Your task to perform on an android device: Go to eBay Image 0: 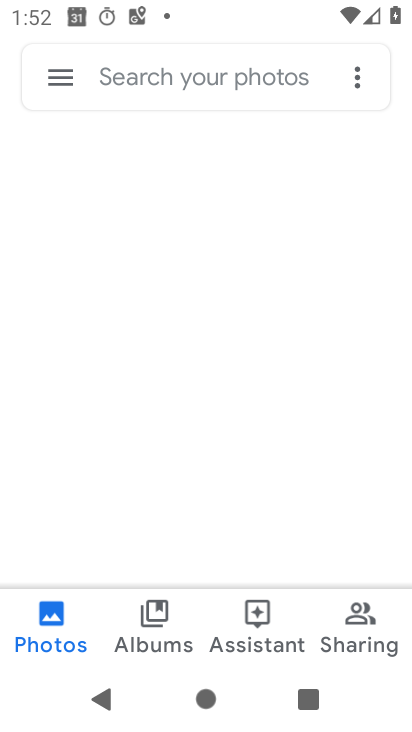
Step 0: press home button
Your task to perform on an android device: Go to eBay Image 1: 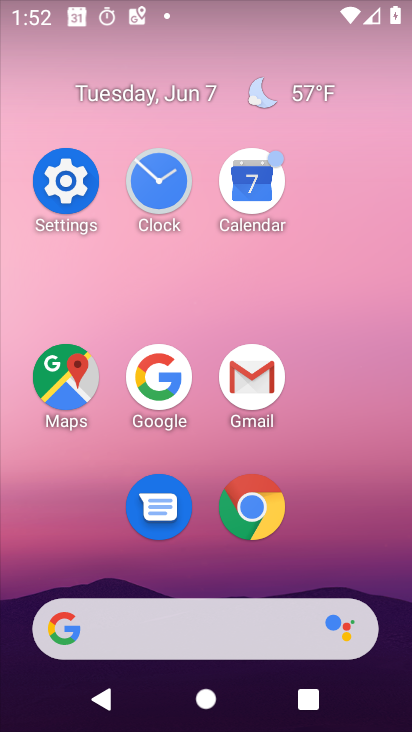
Step 1: click (180, 390)
Your task to perform on an android device: Go to eBay Image 2: 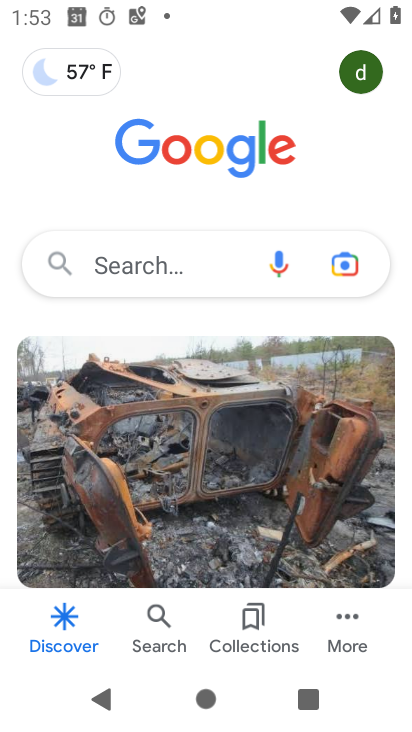
Step 2: click (181, 249)
Your task to perform on an android device: Go to eBay Image 3: 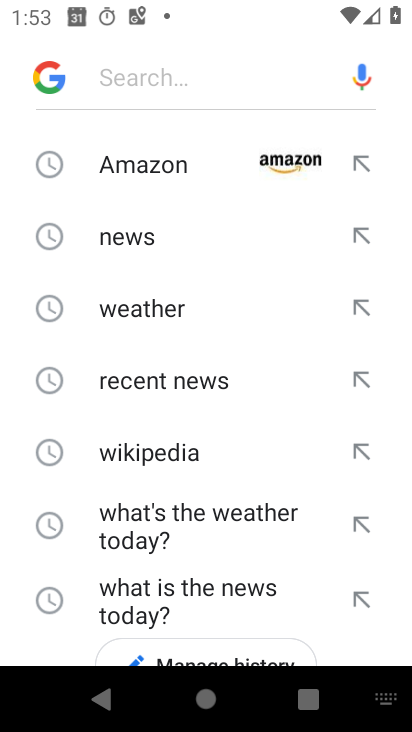
Step 3: drag from (233, 487) to (175, 158)
Your task to perform on an android device: Go to eBay Image 4: 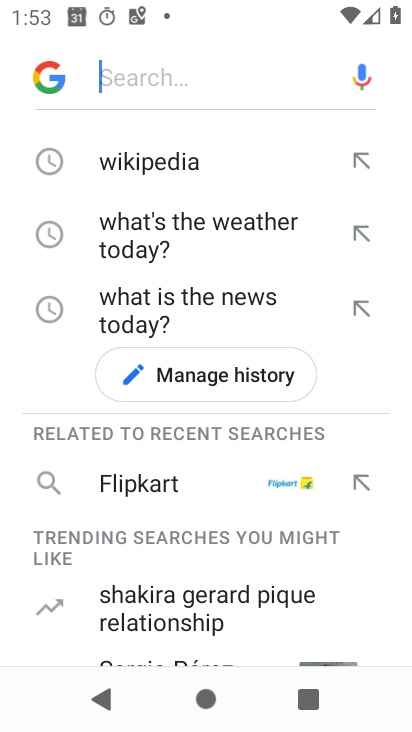
Step 4: drag from (195, 476) to (187, 156)
Your task to perform on an android device: Go to eBay Image 5: 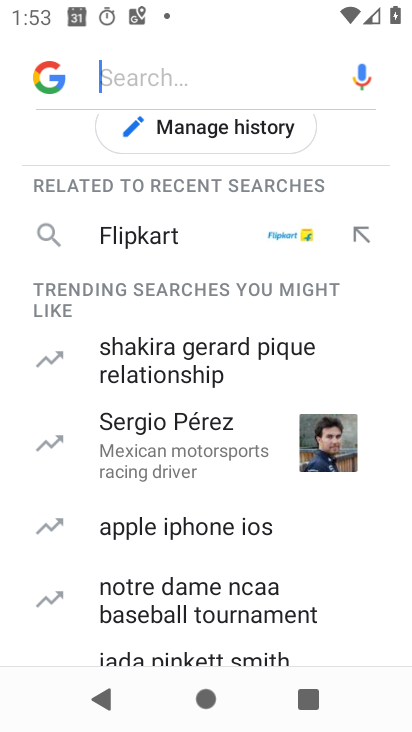
Step 5: drag from (235, 188) to (197, 577)
Your task to perform on an android device: Go to eBay Image 6: 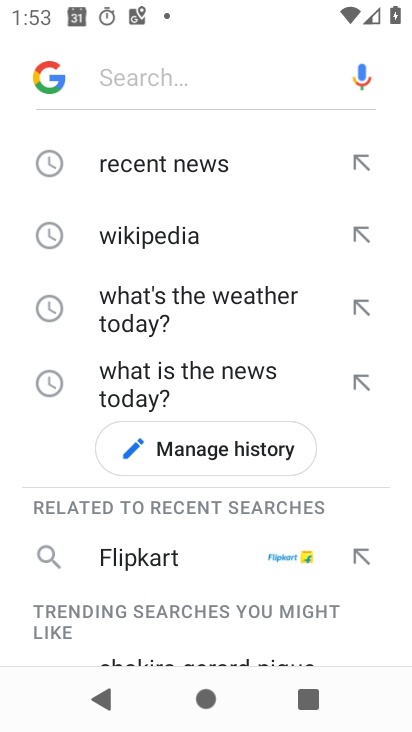
Step 6: drag from (221, 173) to (199, 500)
Your task to perform on an android device: Go to eBay Image 7: 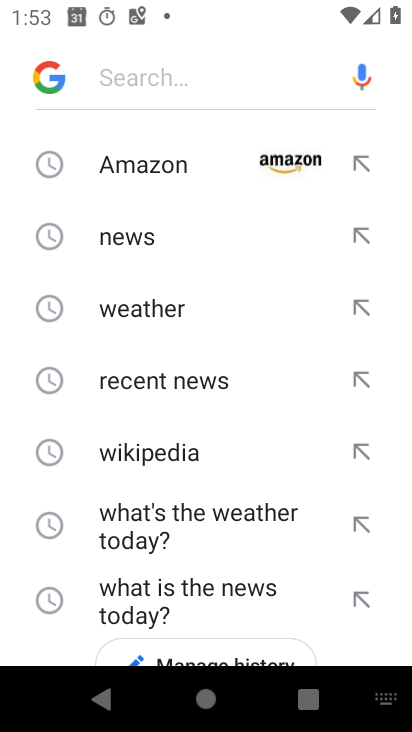
Step 7: type "ebay"
Your task to perform on an android device: Go to eBay Image 8: 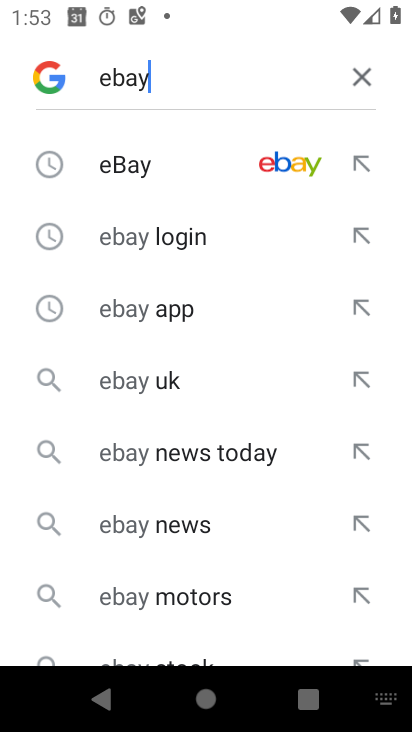
Step 8: click (151, 174)
Your task to perform on an android device: Go to eBay Image 9: 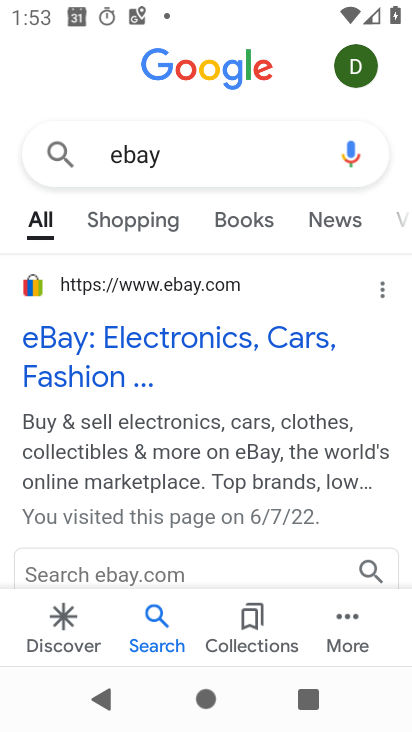
Step 9: task complete